Your task to perform on an android device: Go to eBay Image 0: 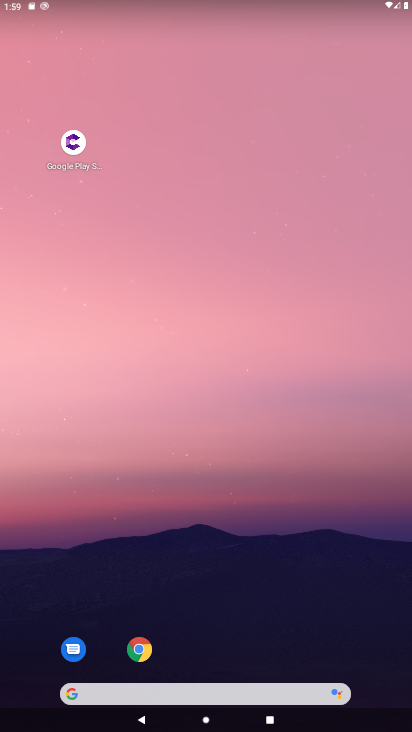
Step 0: click (152, 649)
Your task to perform on an android device: Go to eBay Image 1: 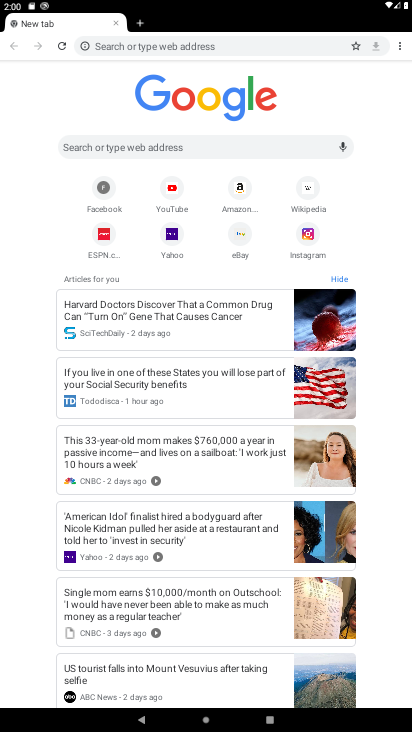
Step 1: click (234, 242)
Your task to perform on an android device: Go to eBay Image 2: 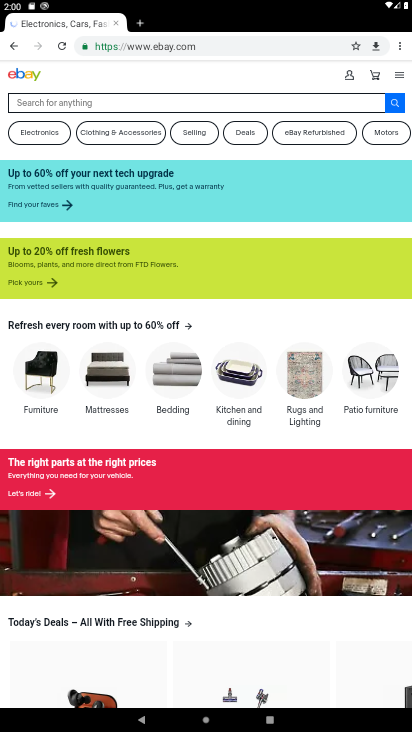
Step 2: task complete